Your task to perform on an android device: open app "Pandora - Music & Podcasts" (install if not already installed) and go to login screen Image 0: 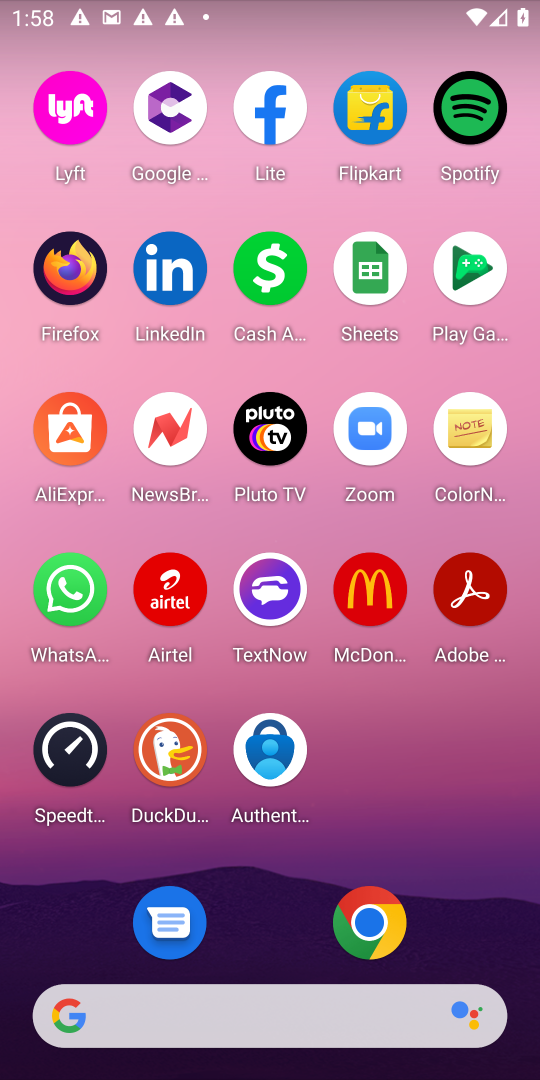
Step 0: drag from (267, 518) to (286, 79)
Your task to perform on an android device: open app "Pandora - Music & Podcasts" (install if not already installed) and go to login screen Image 1: 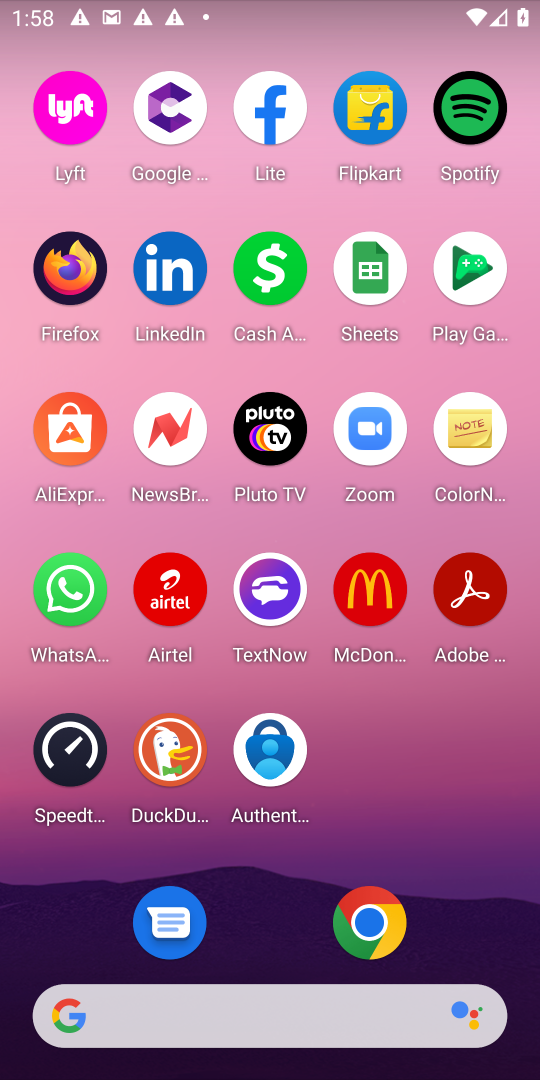
Step 1: drag from (251, 880) to (297, 270)
Your task to perform on an android device: open app "Pandora - Music & Podcasts" (install if not already installed) and go to login screen Image 2: 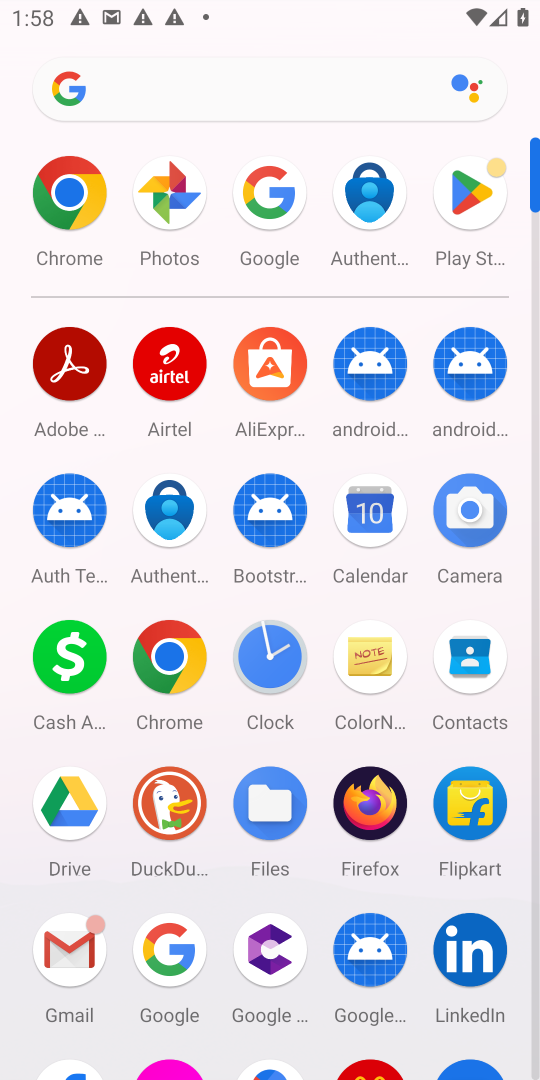
Step 2: click (465, 208)
Your task to perform on an android device: open app "Pandora - Music & Podcasts" (install if not already installed) and go to login screen Image 3: 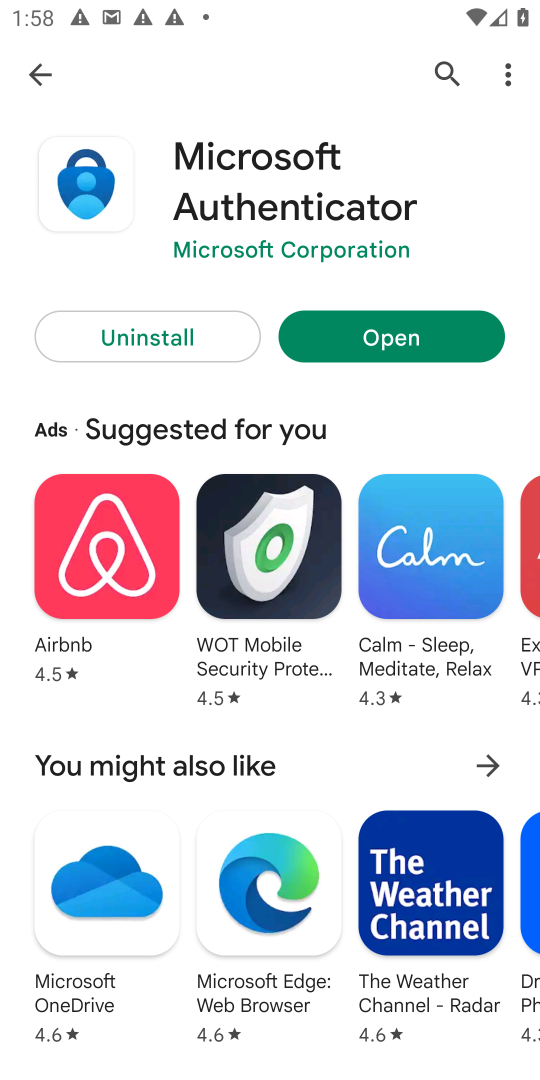
Step 3: click (28, 82)
Your task to perform on an android device: open app "Pandora - Music & Podcasts" (install if not already installed) and go to login screen Image 4: 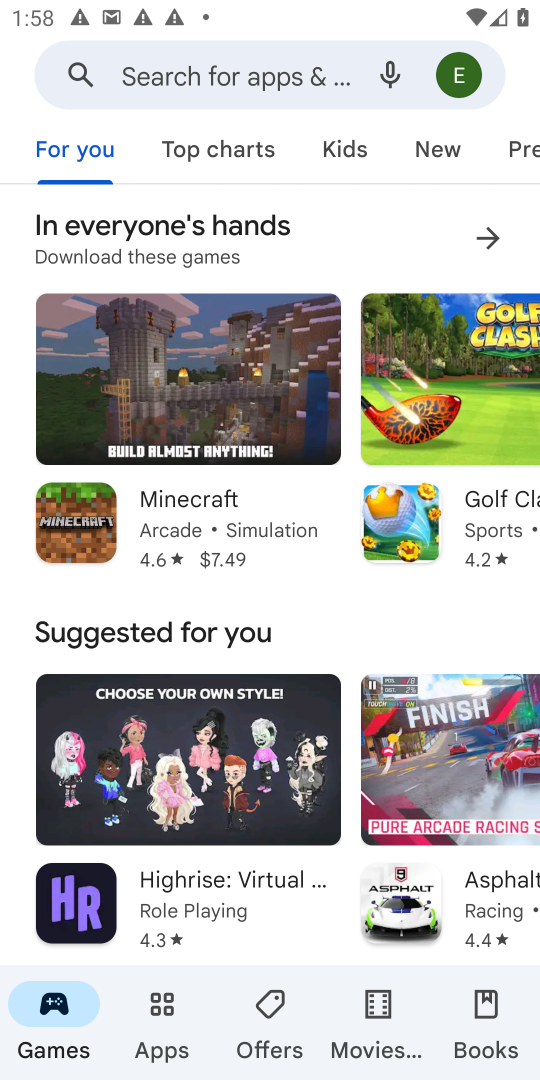
Step 4: click (157, 80)
Your task to perform on an android device: open app "Pandora - Music & Podcasts" (install if not already installed) and go to login screen Image 5: 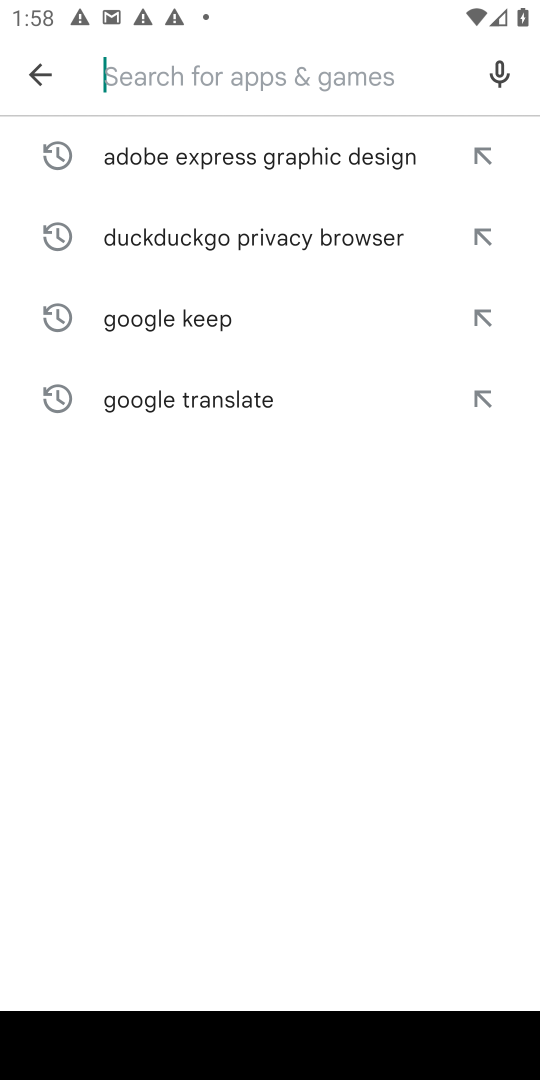
Step 5: type "Pandora"
Your task to perform on an android device: open app "Pandora - Music & Podcasts" (install if not already installed) and go to login screen Image 6: 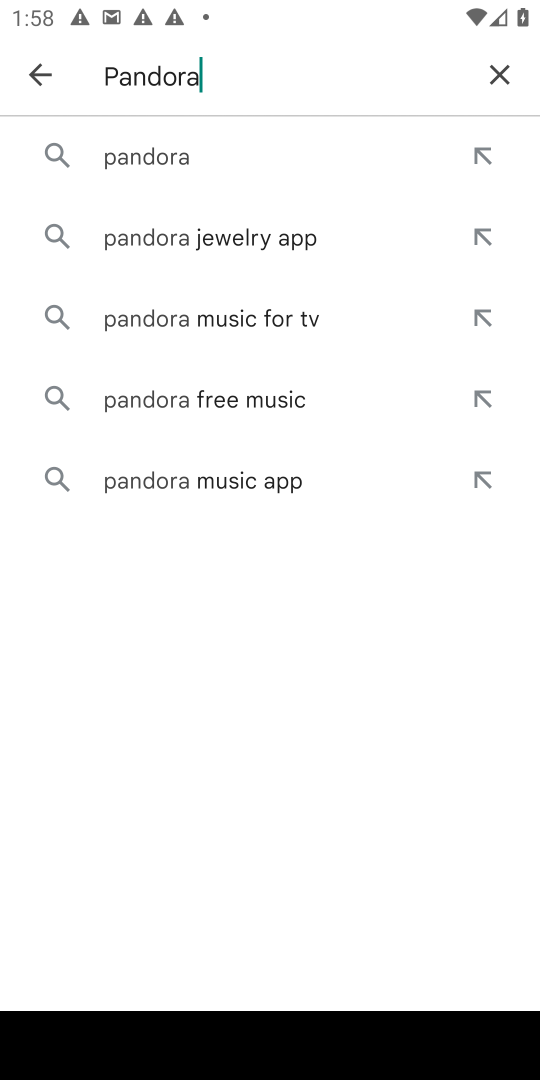
Step 6: click (127, 163)
Your task to perform on an android device: open app "Pandora - Music & Podcasts" (install if not already installed) and go to login screen Image 7: 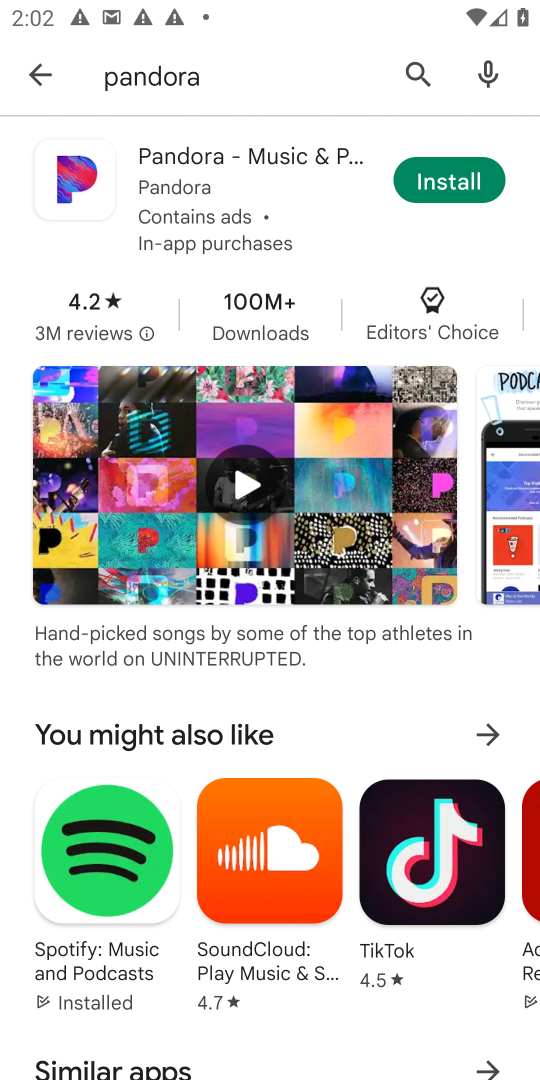
Step 7: click (441, 184)
Your task to perform on an android device: open app "Pandora - Music & Podcasts" (install if not already installed) and go to login screen Image 8: 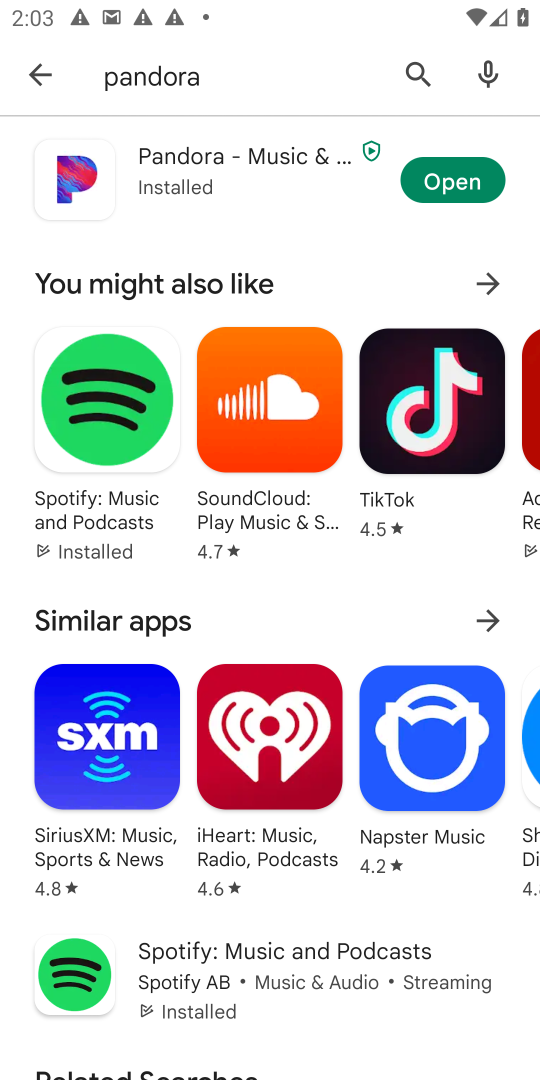
Step 8: click (428, 189)
Your task to perform on an android device: open app "Pandora - Music & Podcasts" (install if not already installed) and go to login screen Image 9: 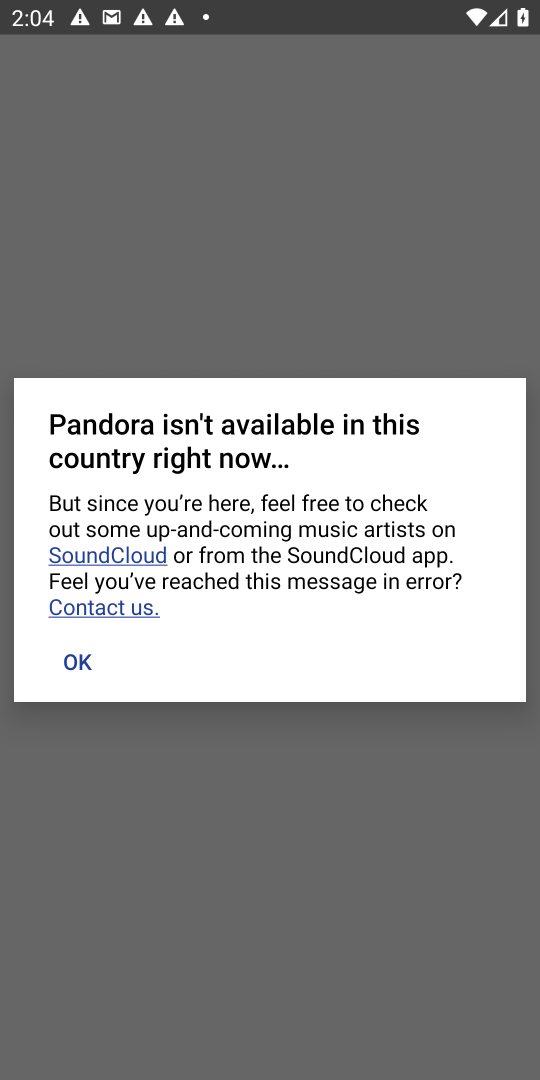
Step 9: click (75, 669)
Your task to perform on an android device: open app "Pandora - Music & Podcasts" (install if not already installed) and go to login screen Image 10: 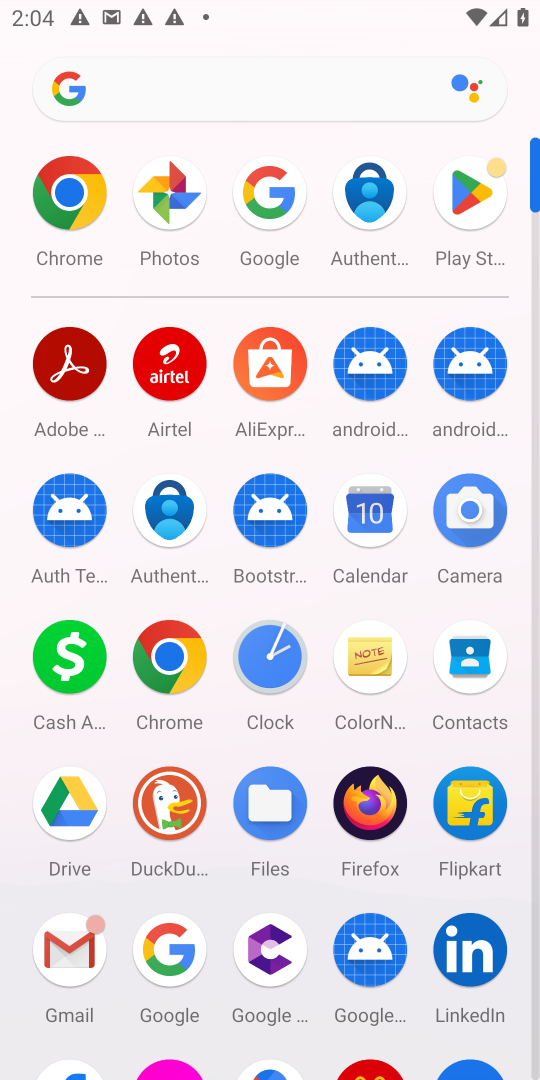
Step 10: click (471, 229)
Your task to perform on an android device: open app "Pandora - Music & Podcasts" (install if not already installed) and go to login screen Image 11: 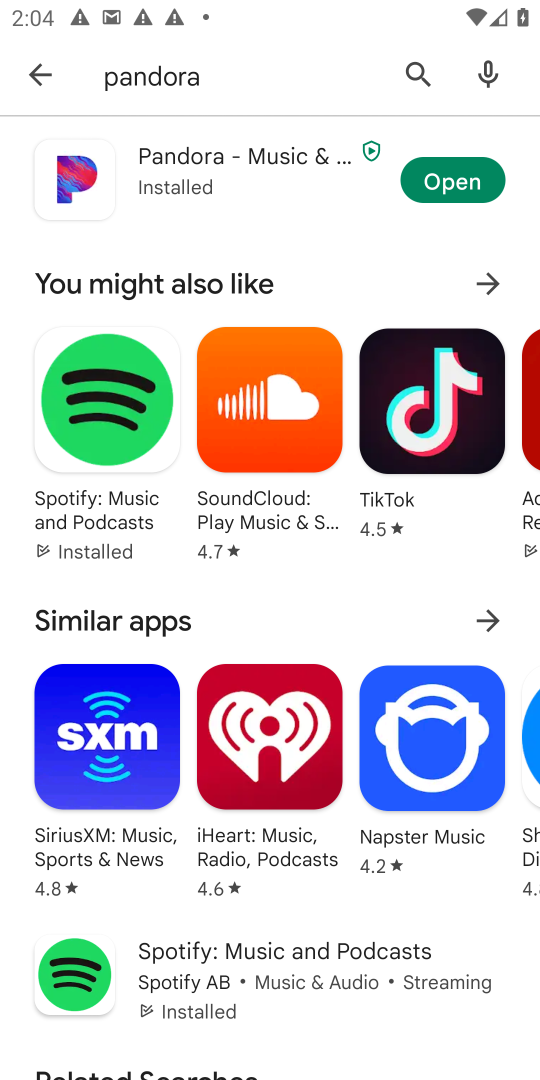
Step 11: click (452, 194)
Your task to perform on an android device: open app "Pandora - Music & Podcasts" (install if not already installed) and go to login screen Image 12: 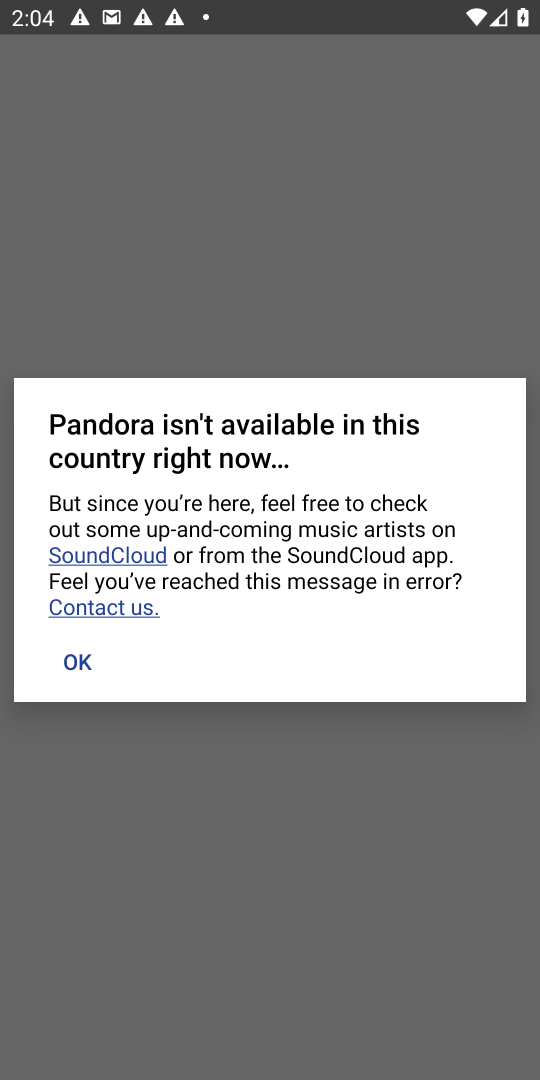
Step 12: task complete